Your task to perform on an android device: Open wifi settings Image 0: 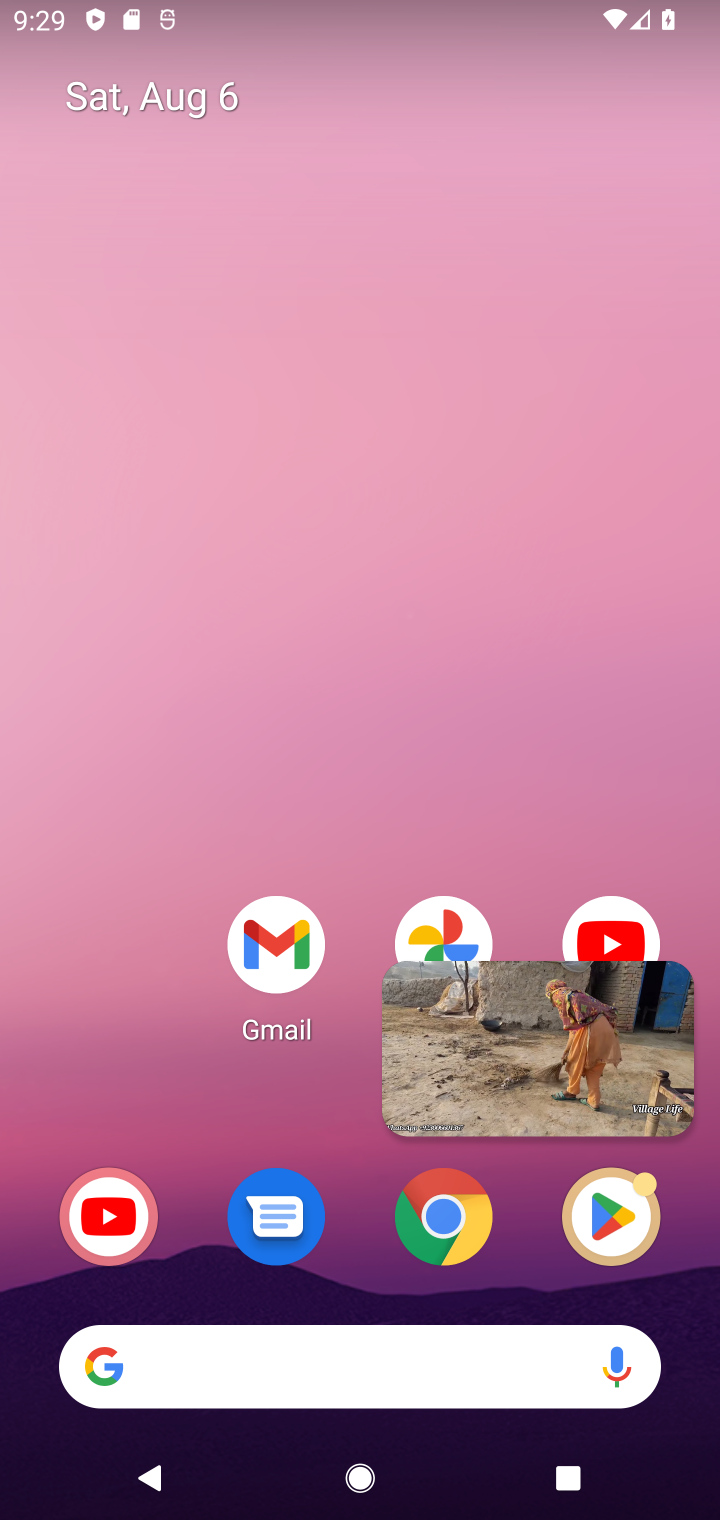
Step 0: click (582, 1085)
Your task to perform on an android device: Open wifi settings Image 1: 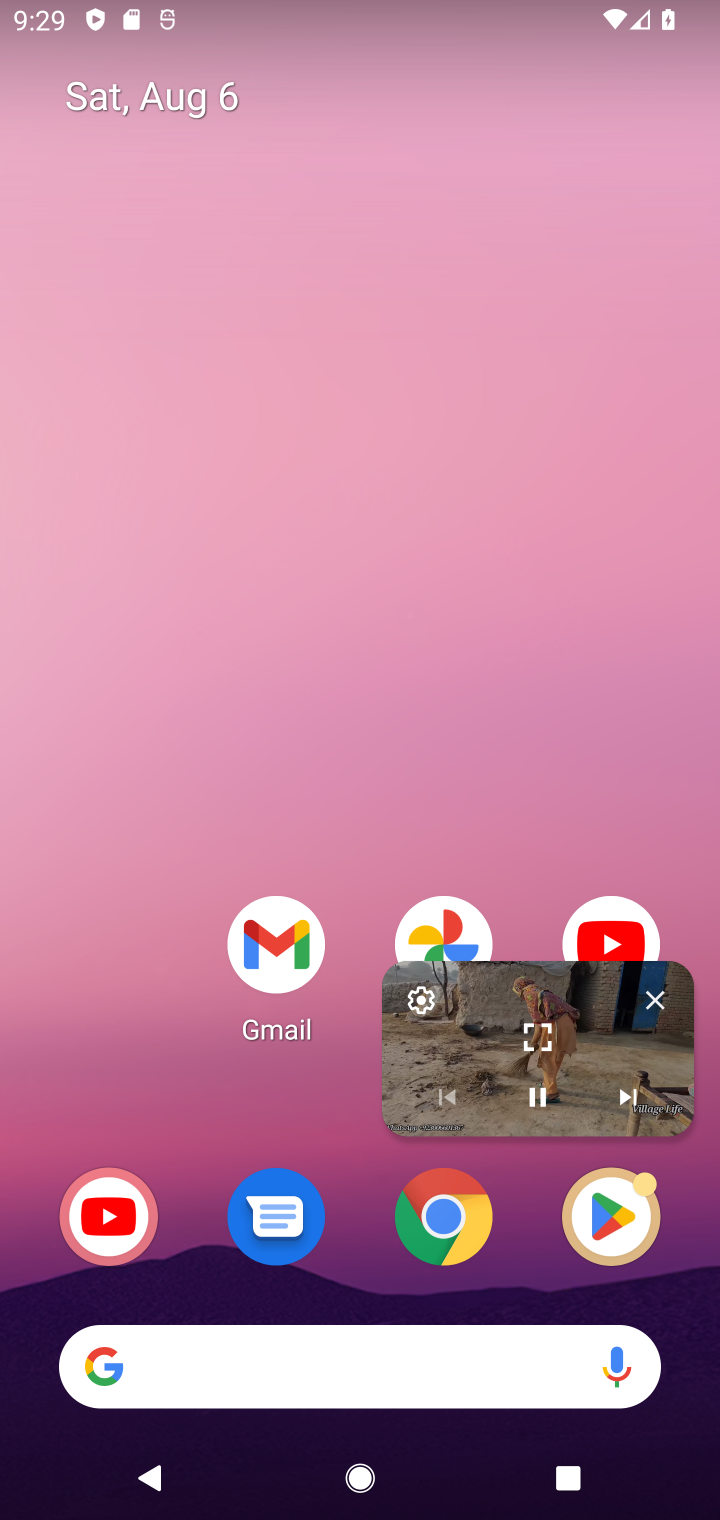
Step 1: click (512, 1061)
Your task to perform on an android device: Open wifi settings Image 2: 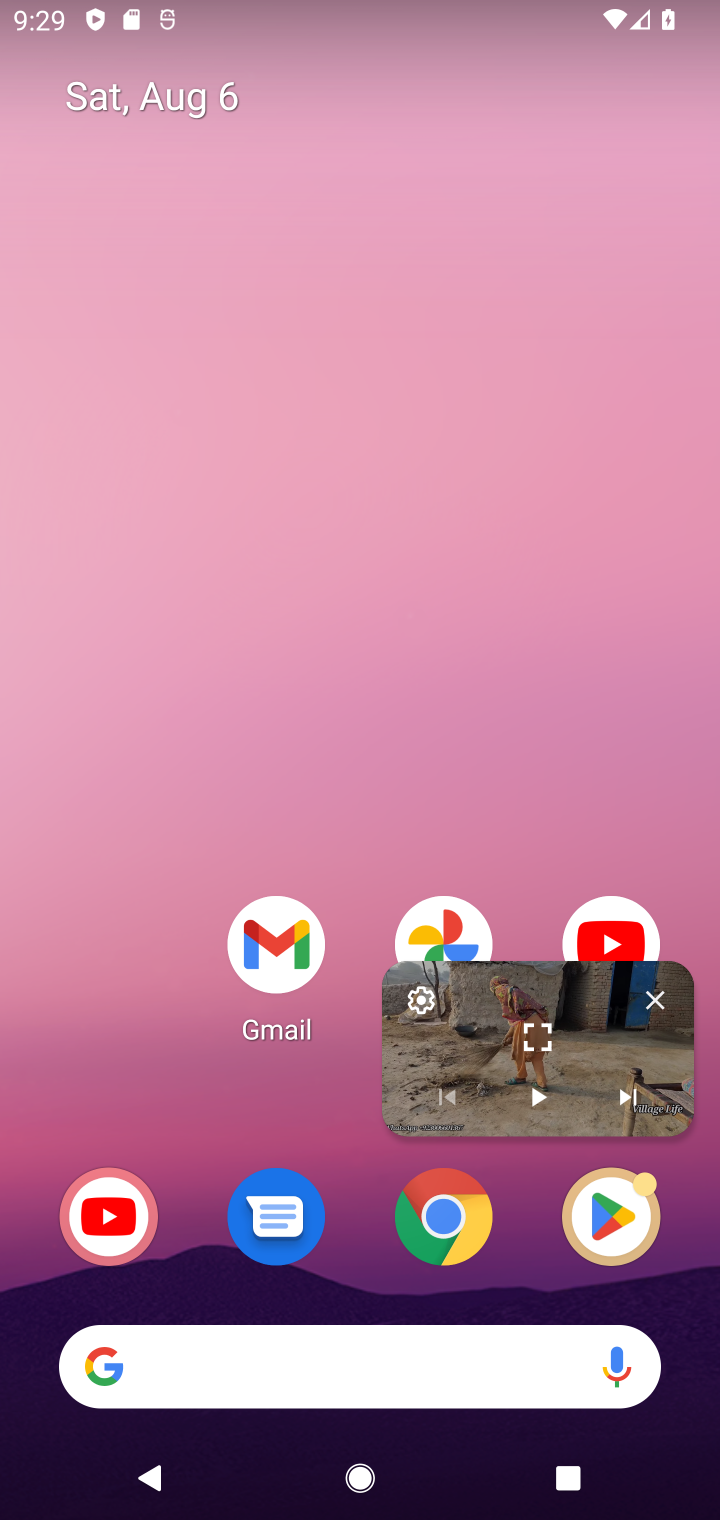
Step 2: click (645, 1009)
Your task to perform on an android device: Open wifi settings Image 3: 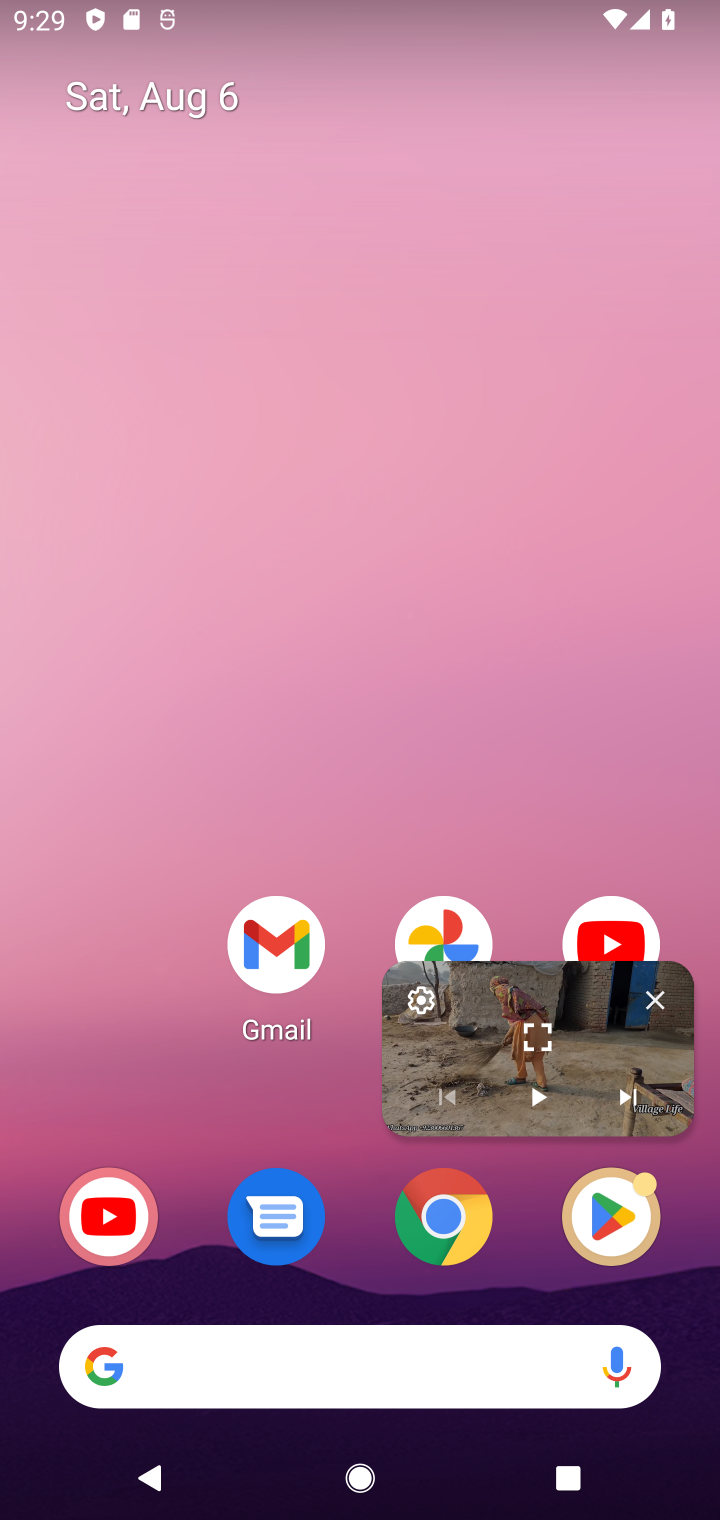
Step 3: click (655, 1011)
Your task to perform on an android device: Open wifi settings Image 4: 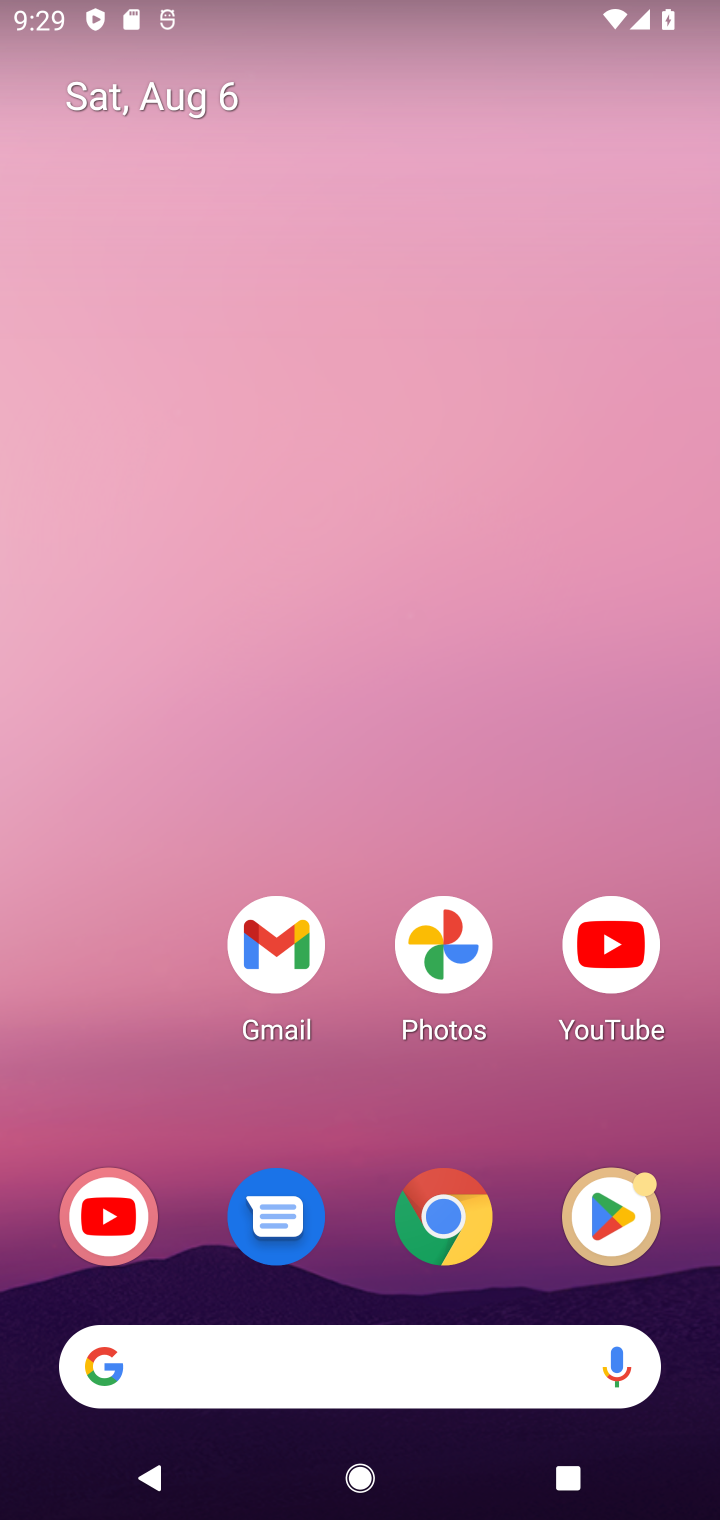
Step 4: drag from (308, 898) to (374, 356)
Your task to perform on an android device: Open wifi settings Image 5: 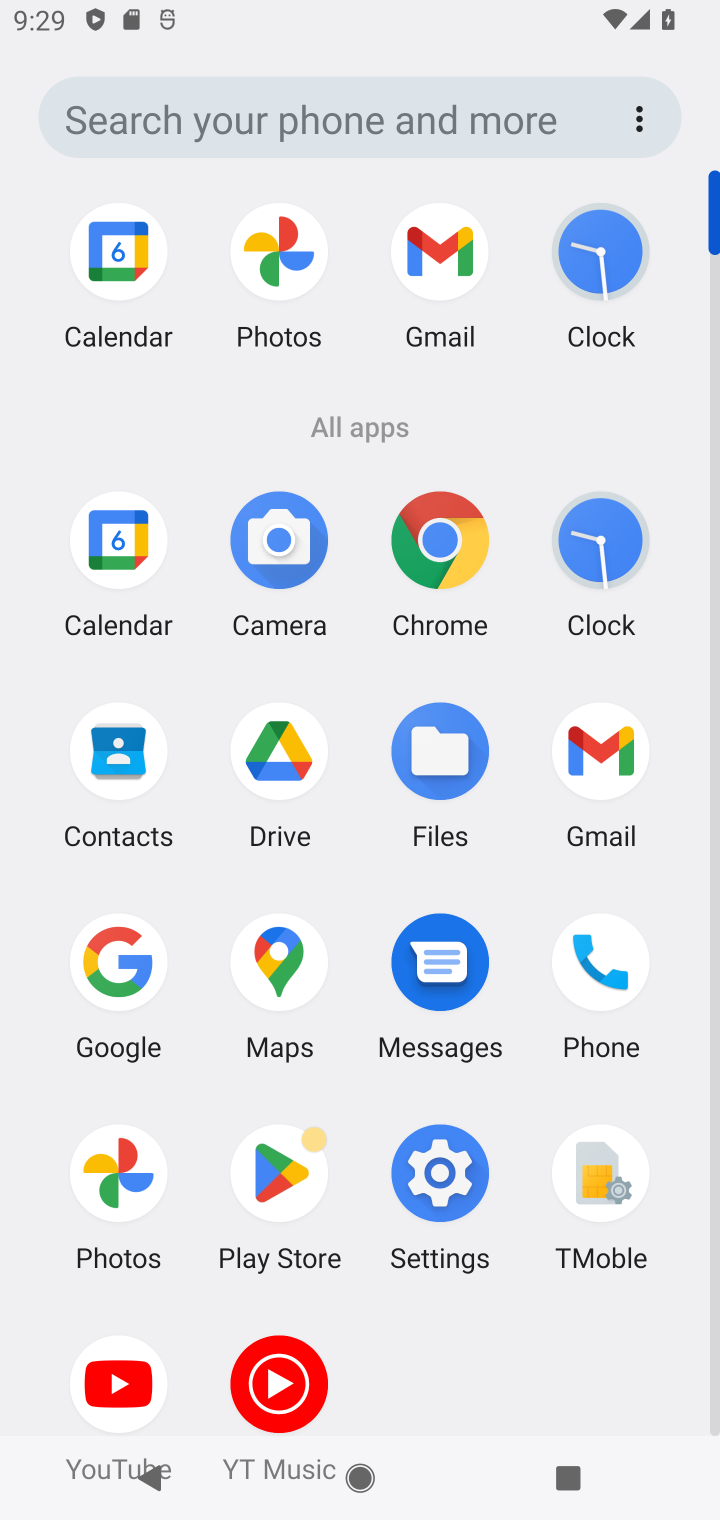
Step 5: click (470, 1183)
Your task to perform on an android device: Open wifi settings Image 6: 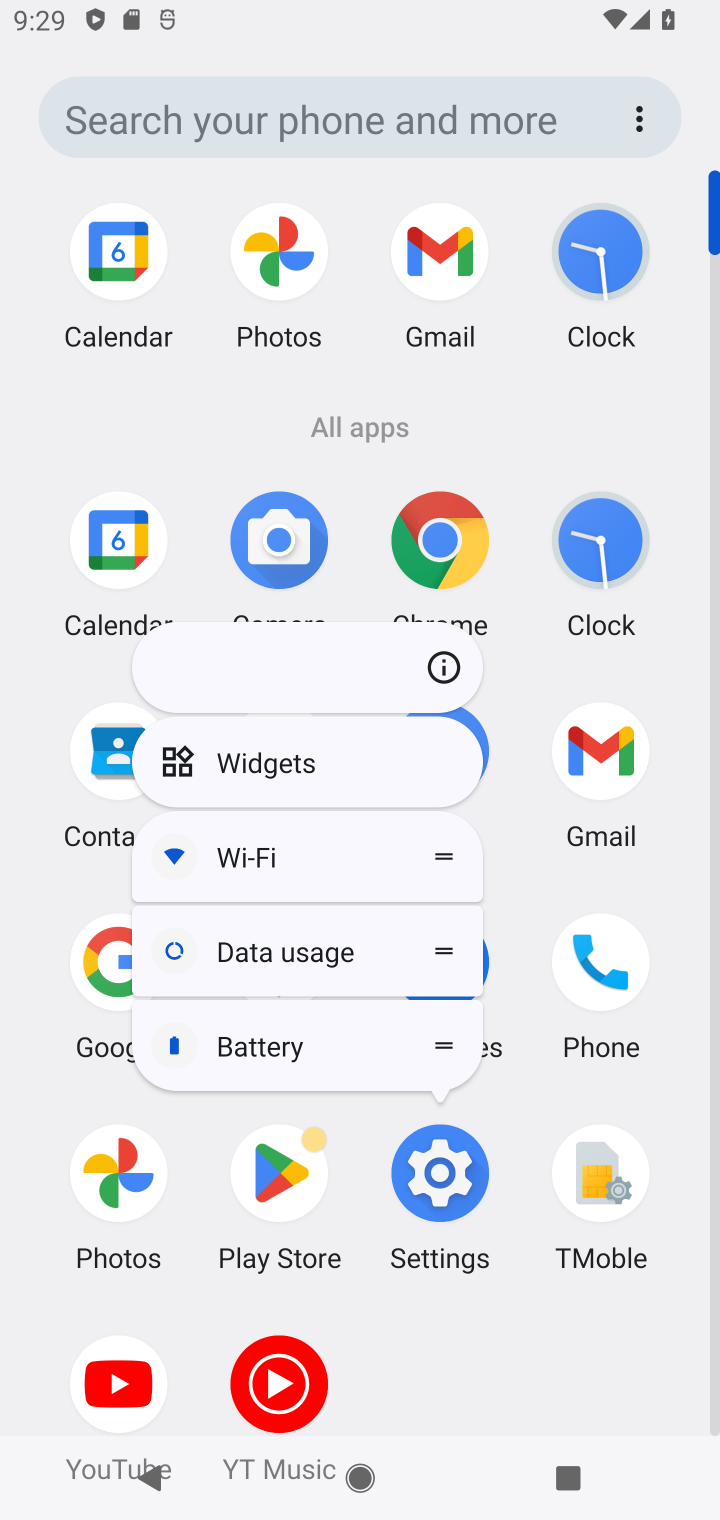
Step 6: click (452, 1187)
Your task to perform on an android device: Open wifi settings Image 7: 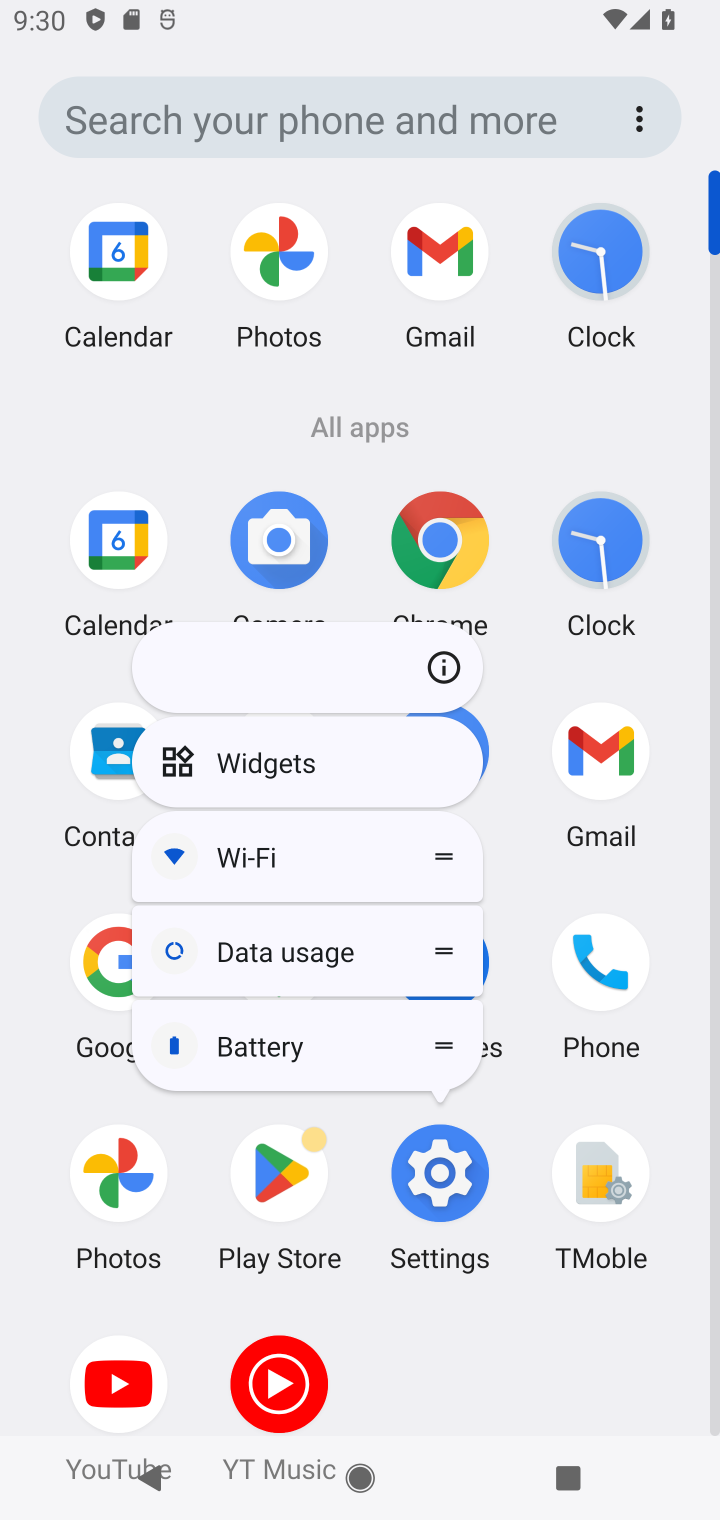
Step 7: click (444, 1158)
Your task to perform on an android device: Open wifi settings Image 8: 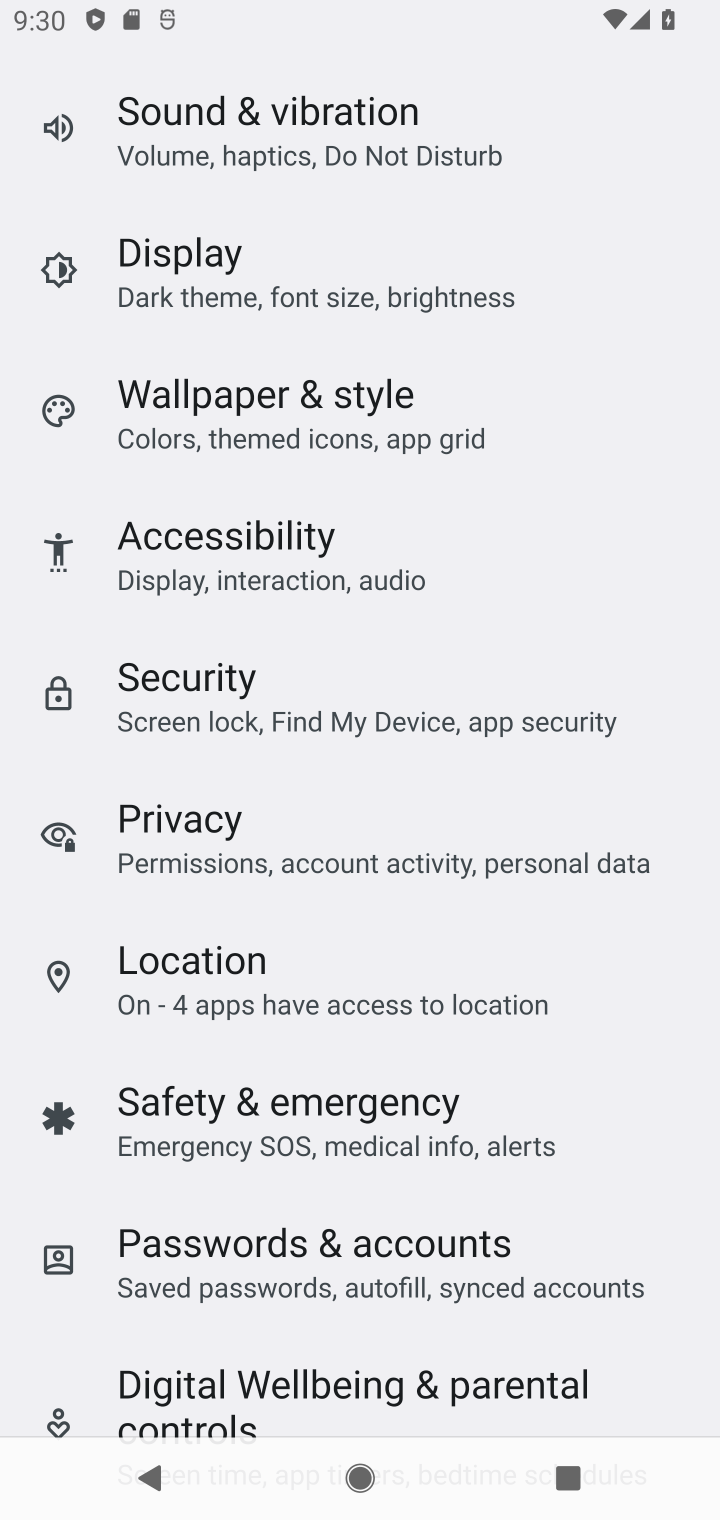
Step 8: drag from (231, 76) to (305, 1082)
Your task to perform on an android device: Open wifi settings Image 9: 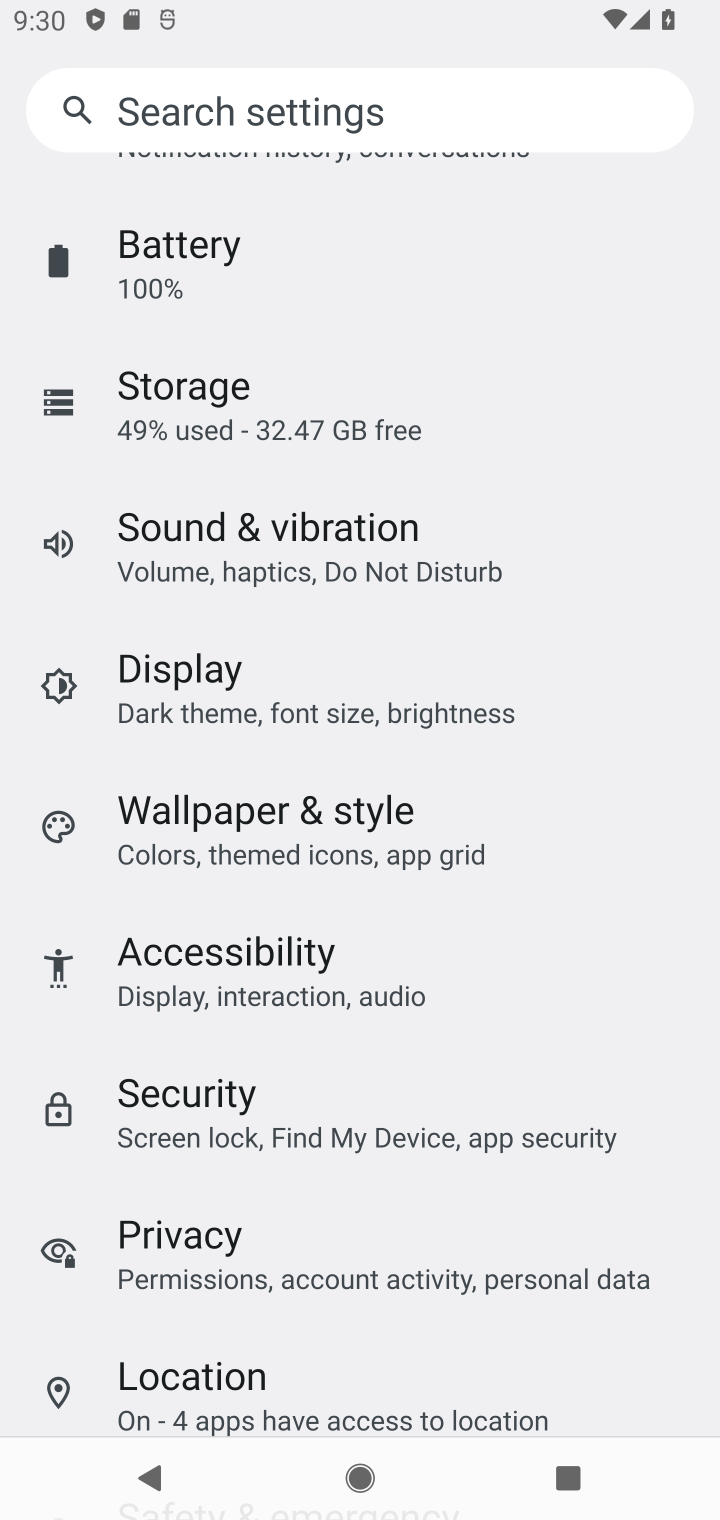
Step 9: drag from (170, 231) to (314, 1069)
Your task to perform on an android device: Open wifi settings Image 10: 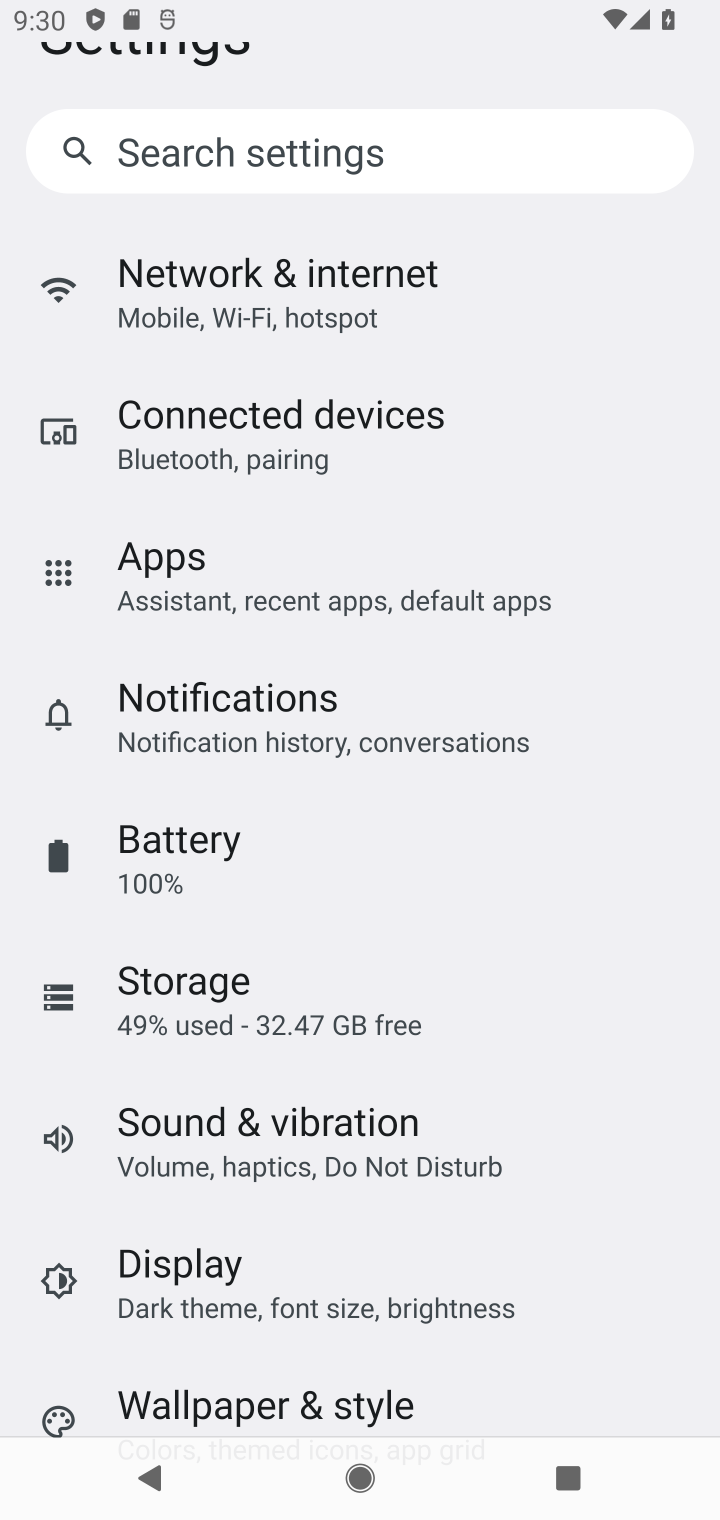
Step 10: drag from (199, 211) to (290, 1134)
Your task to perform on an android device: Open wifi settings Image 11: 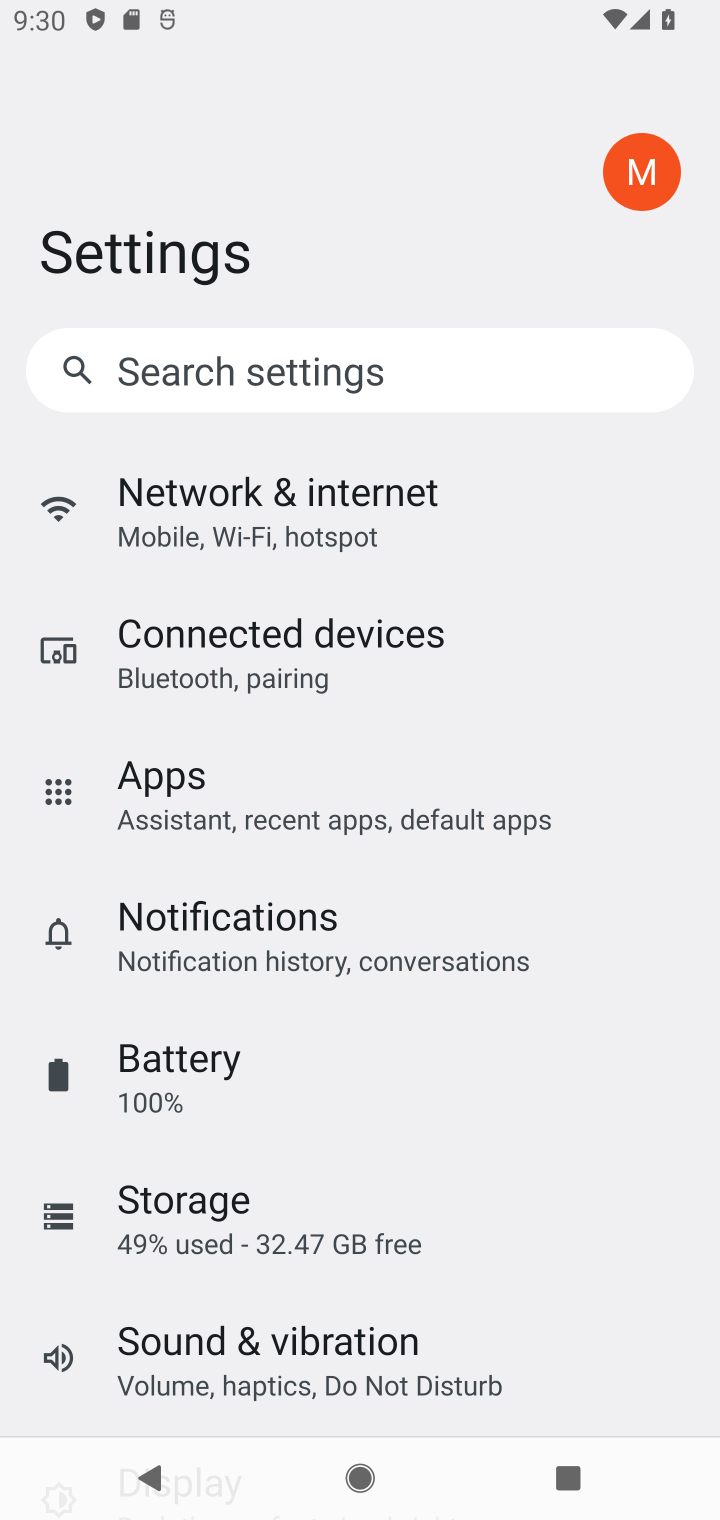
Step 11: click (245, 530)
Your task to perform on an android device: Open wifi settings Image 12: 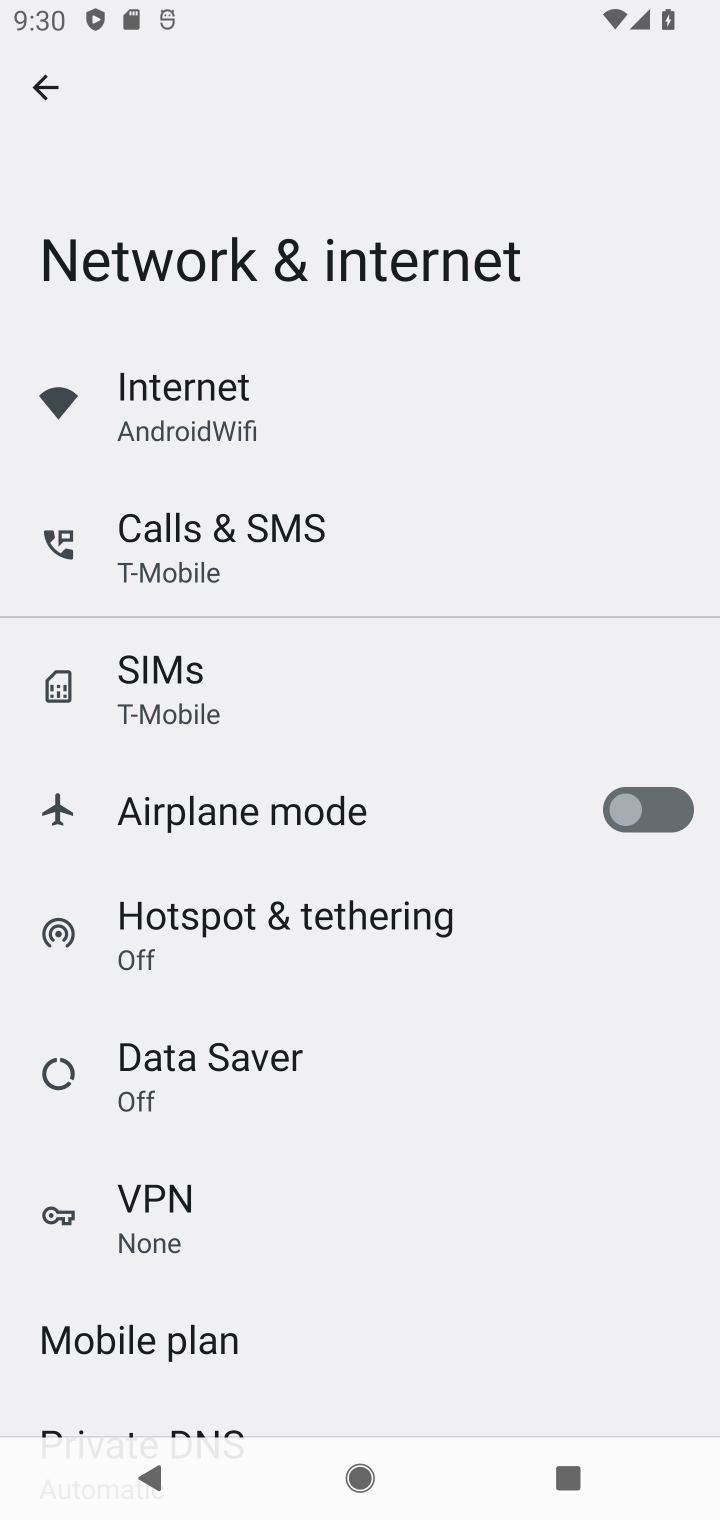
Step 12: click (228, 416)
Your task to perform on an android device: Open wifi settings Image 13: 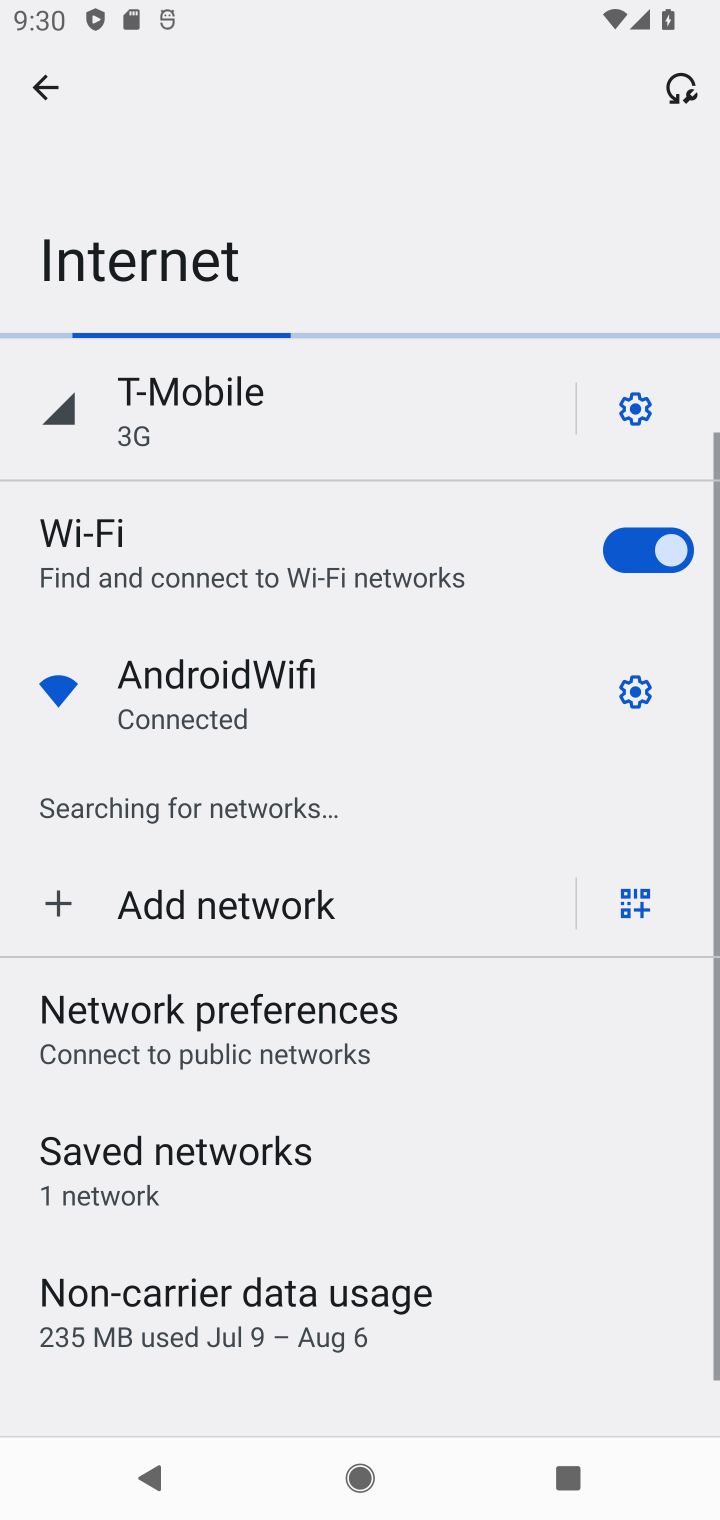
Step 13: click (622, 699)
Your task to perform on an android device: Open wifi settings Image 14: 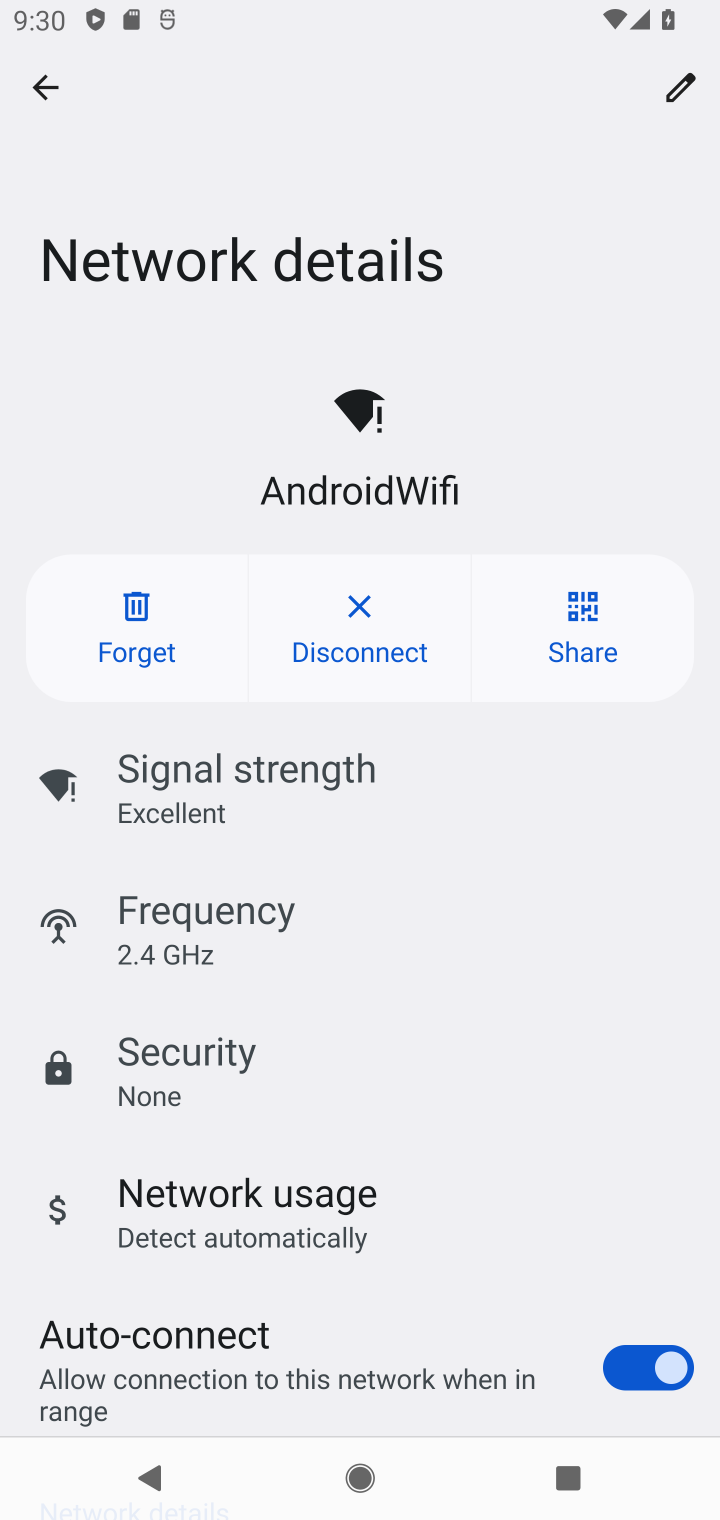
Step 14: task complete